Your task to perform on an android device: turn off sleep mode Image 0: 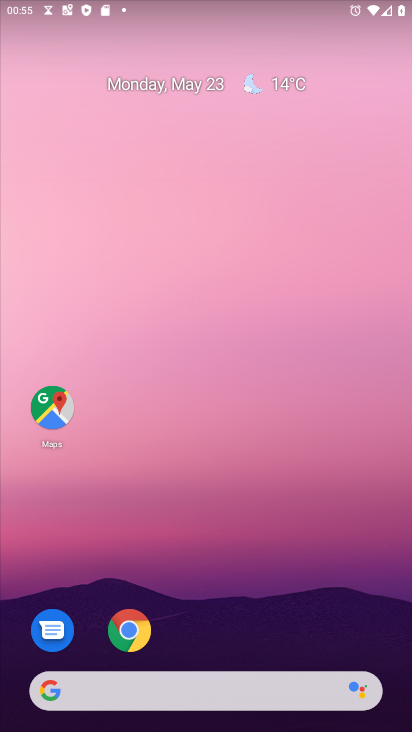
Step 0: drag from (311, 522) to (247, 4)
Your task to perform on an android device: turn off sleep mode Image 1: 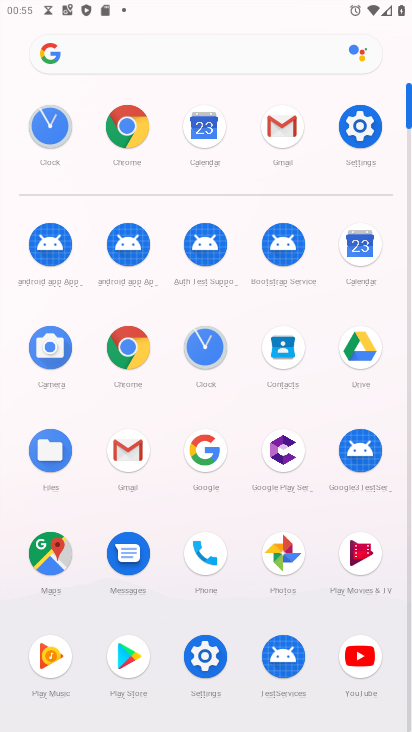
Step 1: click (352, 135)
Your task to perform on an android device: turn off sleep mode Image 2: 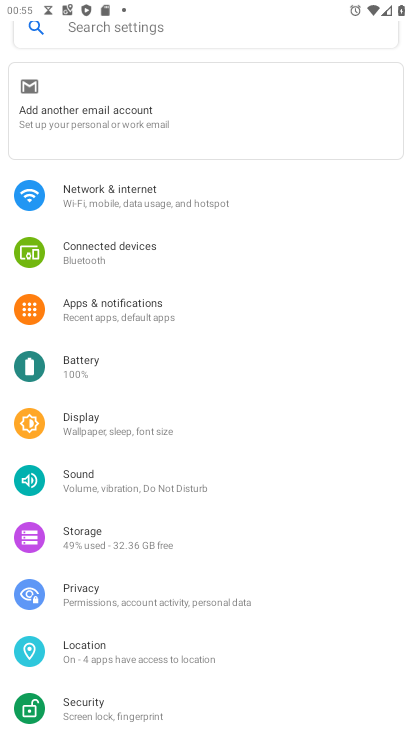
Step 2: click (170, 413)
Your task to perform on an android device: turn off sleep mode Image 3: 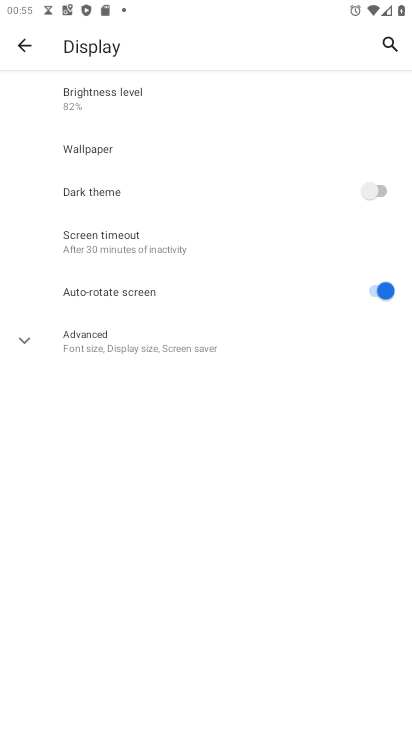
Step 3: task complete